Your task to perform on an android device: choose inbox layout in the gmail app Image 0: 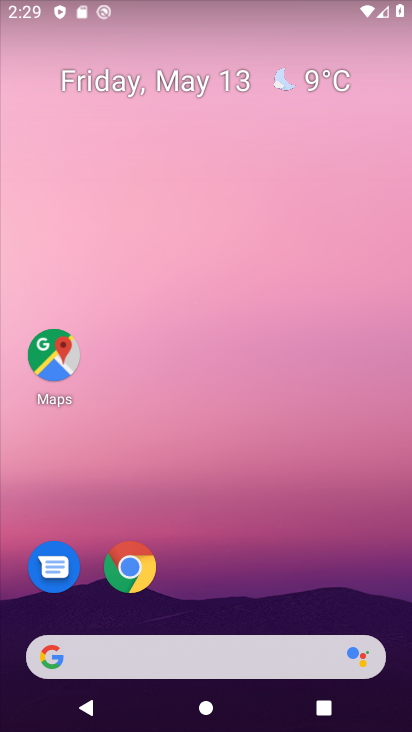
Step 0: drag from (317, 617) to (344, 27)
Your task to perform on an android device: choose inbox layout in the gmail app Image 1: 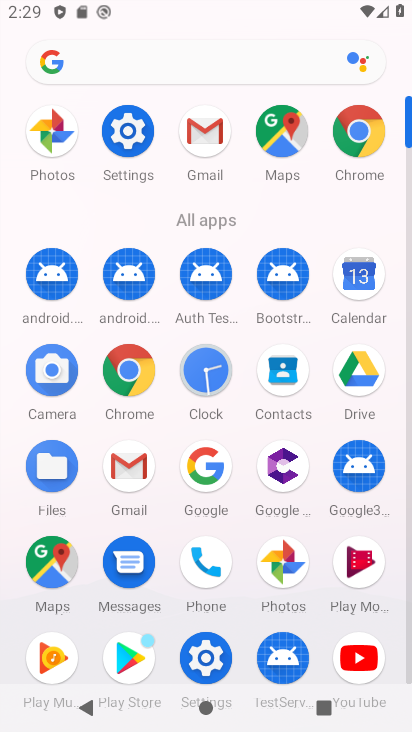
Step 1: click (198, 141)
Your task to perform on an android device: choose inbox layout in the gmail app Image 2: 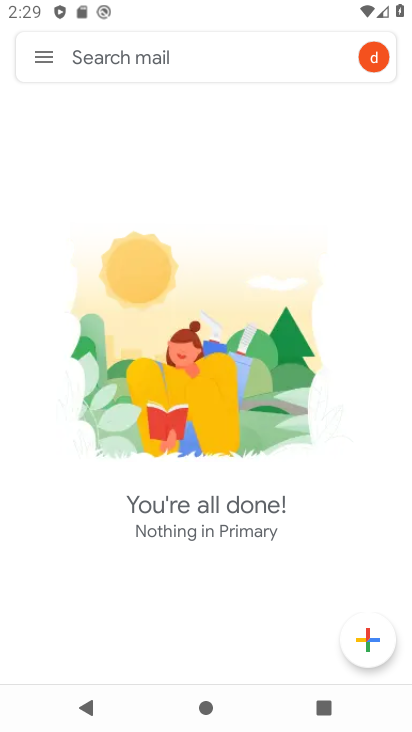
Step 2: click (38, 56)
Your task to perform on an android device: choose inbox layout in the gmail app Image 3: 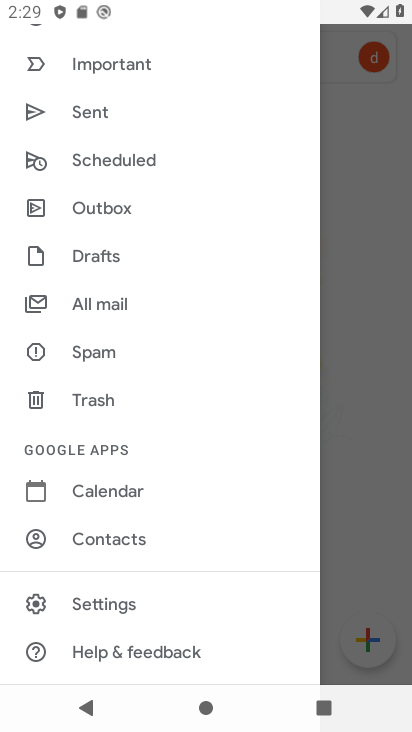
Step 3: click (121, 603)
Your task to perform on an android device: choose inbox layout in the gmail app Image 4: 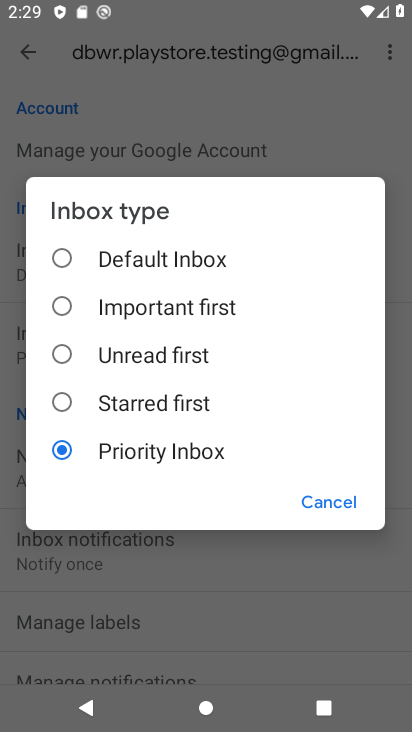
Step 4: click (69, 350)
Your task to perform on an android device: choose inbox layout in the gmail app Image 5: 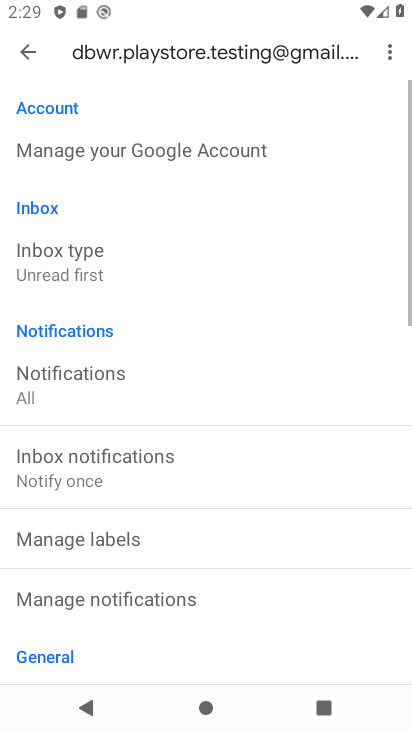
Step 5: task complete